Your task to perform on an android device: open the mobile data screen to see how much data has been used Image 0: 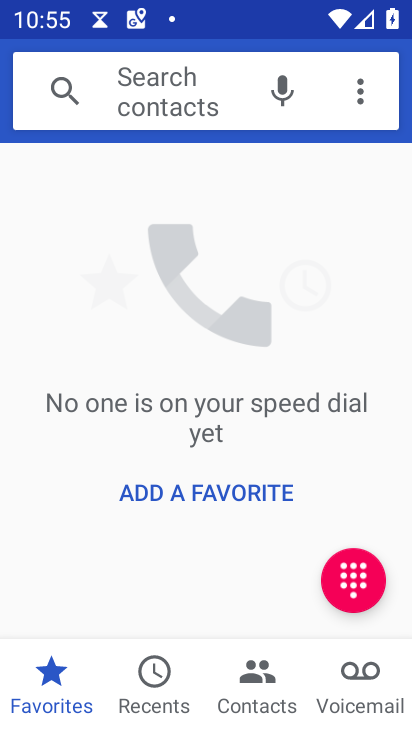
Step 0: press home button
Your task to perform on an android device: open the mobile data screen to see how much data has been used Image 1: 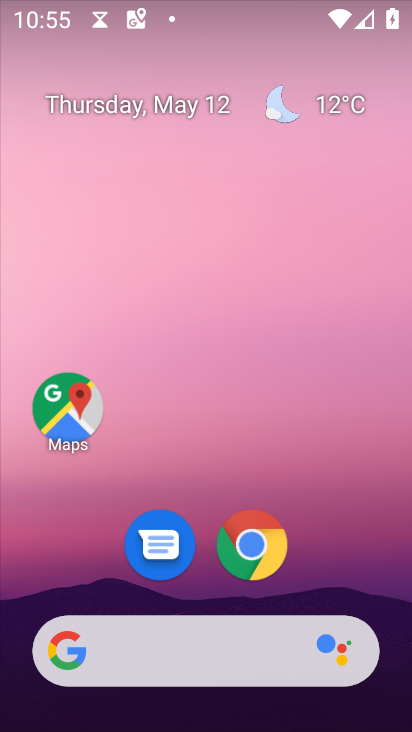
Step 1: drag from (204, 583) to (229, 85)
Your task to perform on an android device: open the mobile data screen to see how much data has been used Image 2: 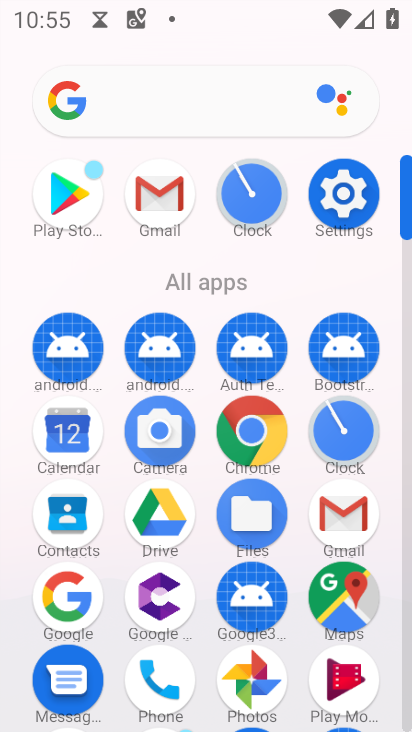
Step 2: click (343, 193)
Your task to perform on an android device: open the mobile data screen to see how much data has been used Image 3: 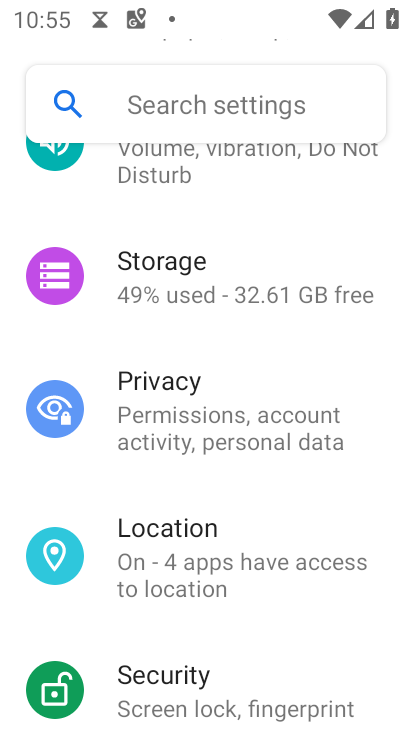
Step 3: drag from (198, 201) to (192, 731)
Your task to perform on an android device: open the mobile data screen to see how much data has been used Image 4: 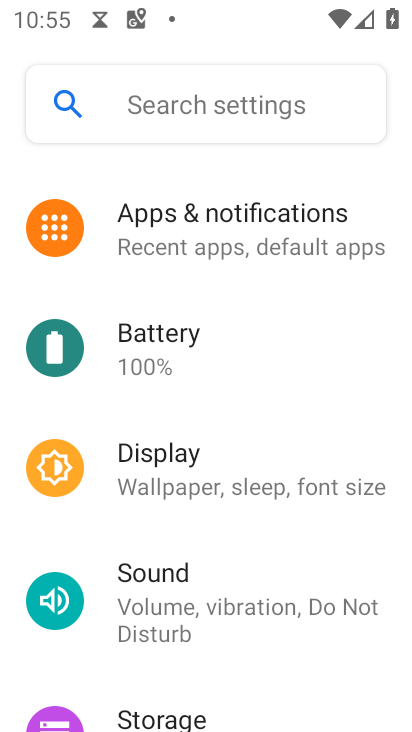
Step 4: drag from (195, 250) to (194, 730)
Your task to perform on an android device: open the mobile data screen to see how much data has been used Image 5: 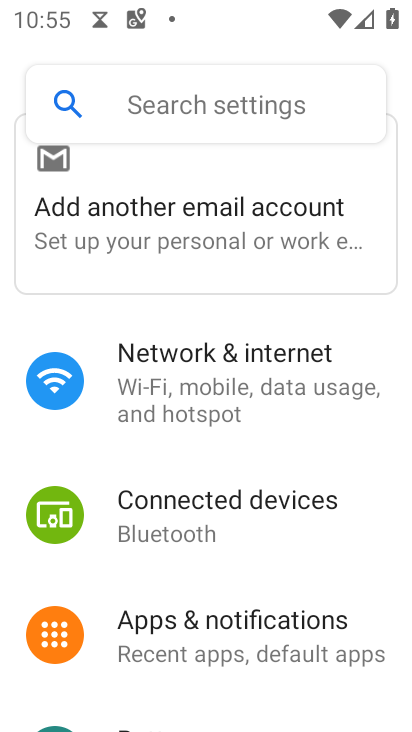
Step 5: click (252, 398)
Your task to perform on an android device: open the mobile data screen to see how much data has been used Image 6: 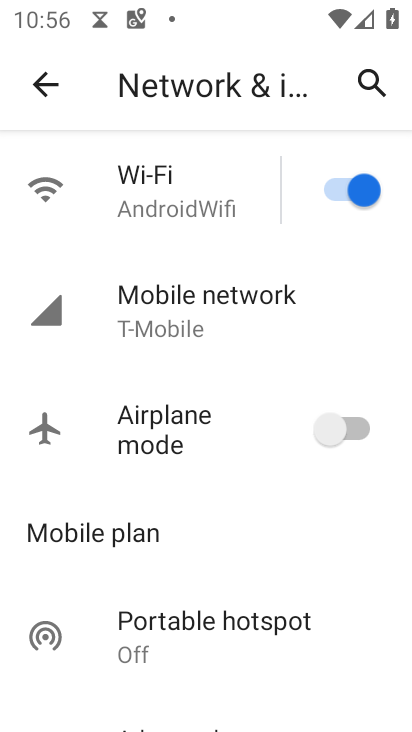
Step 6: click (221, 321)
Your task to perform on an android device: open the mobile data screen to see how much data has been used Image 7: 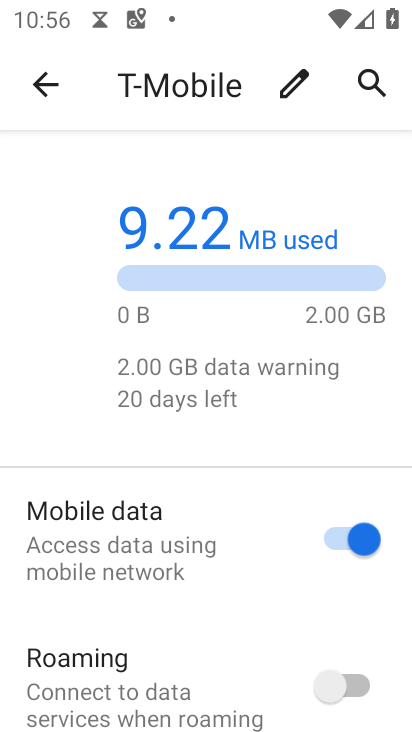
Step 7: drag from (227, 642) to (253, 171)
Your task to perform on an android device: open the mobile data screen to see how much data has been used Image 8: 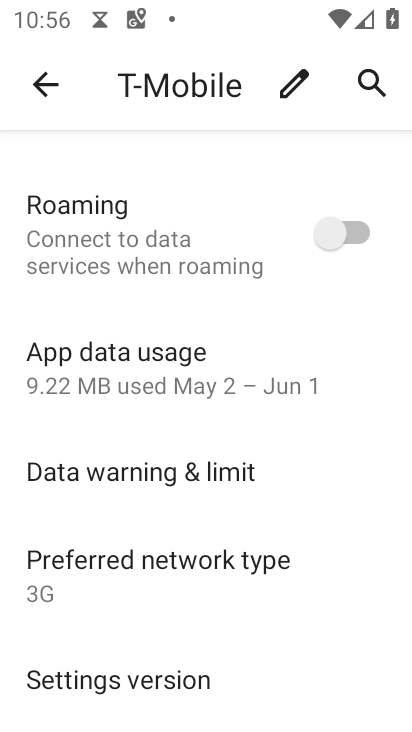
Step 8: click (226, 364)
Your task to perform on an android device: open the mobile data screen to see how much data has been used Image 9: 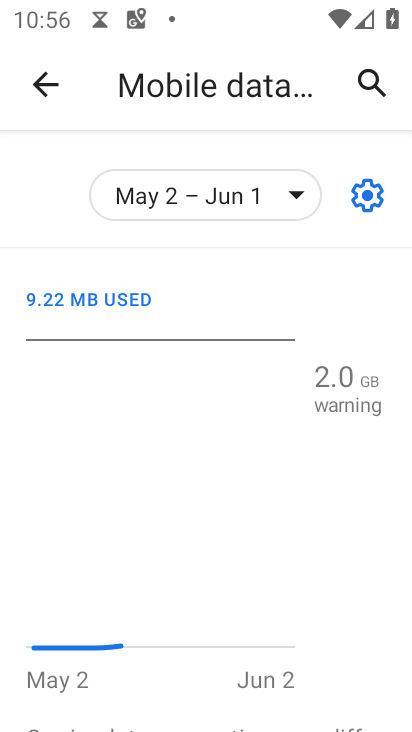
Step 9: task complete